Your task to perform on an android device: turn off smart reply in the gmail app Image 0: 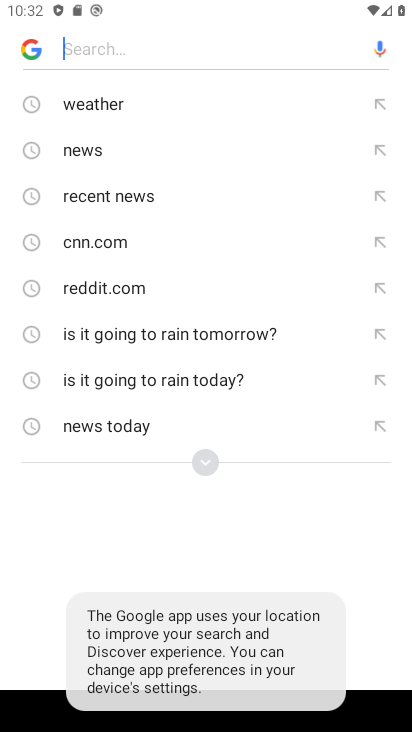
Step 0: press home button
Your task to perform on an android device: turn off smart reply in the gmail app Image 1: 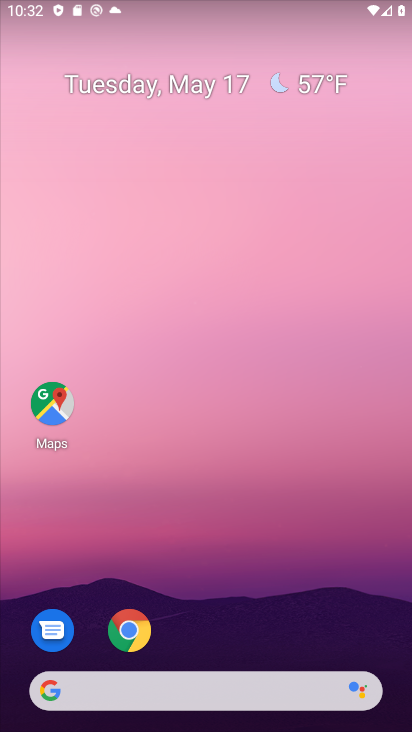
Step 1: drag from (200, 622) to (250, 87)
Your task to perform on an android device: turn off smart reply in the gmail app Image 2: 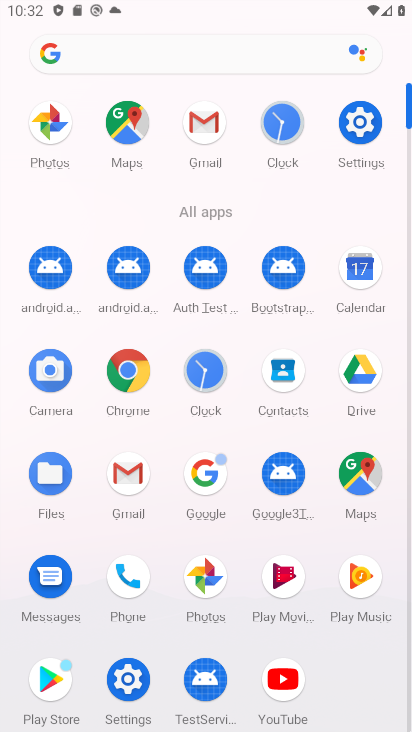
Step 2: click (132, 477)
Your task to perform on an android device: turn off smart reply in the gmail app Image 3: 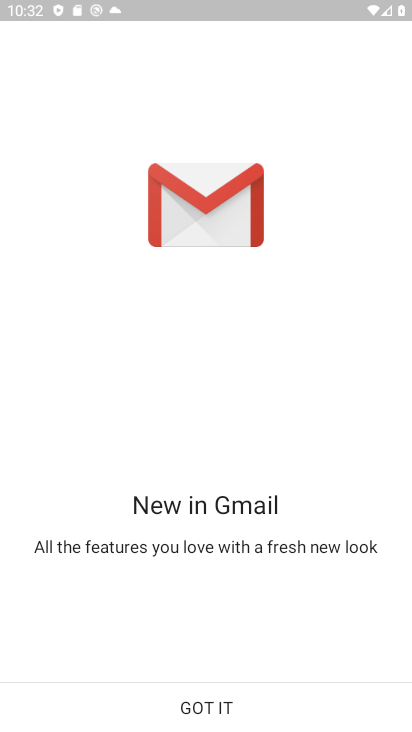
Step 3: click (200, 719)
Your task to perform on an android device: turn off smart reply in the gmail app Image 4: 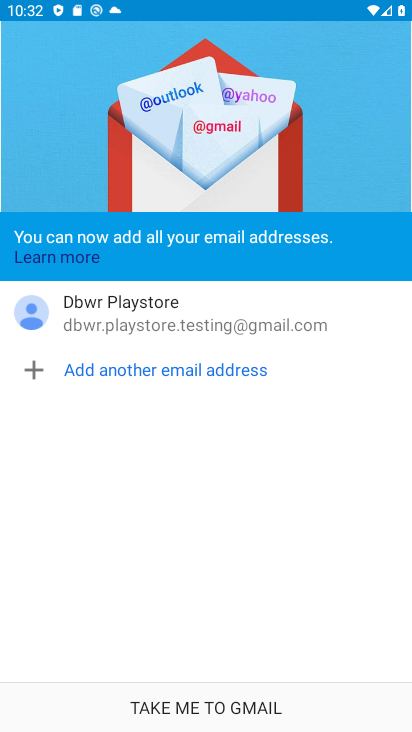
Step 4: click (201, 709)
Your task to perform on an android device: turn off smart reply in the gmail app Image 5: 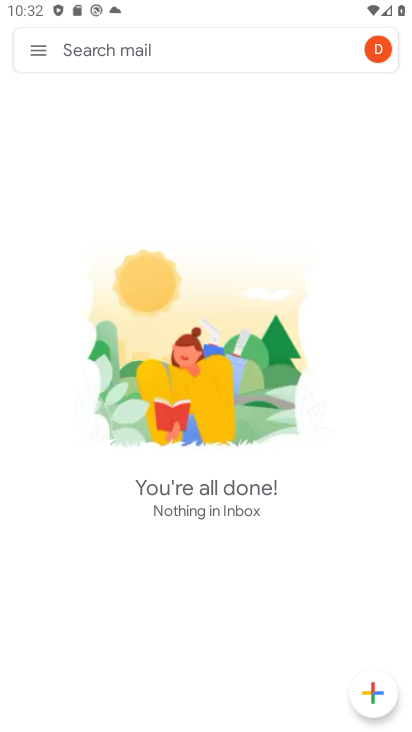
Step 5: click (18, 33)
Your task to perform on an android device: turn off smart reply in the gmail app Image 6: 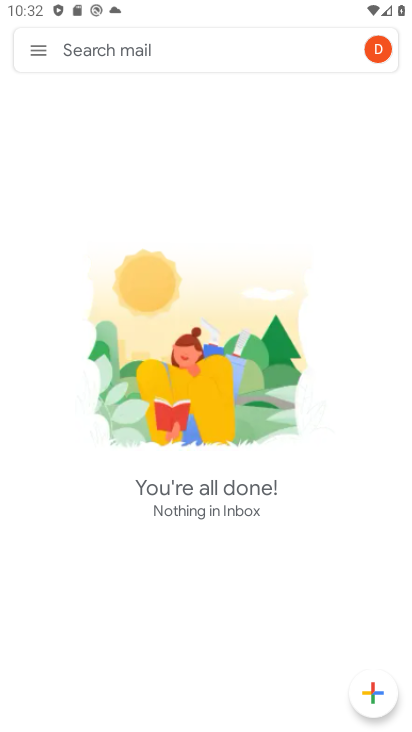
Step 6: click (36, 53)
Your task to perform on an android device: turn off smart reply in the gmail app Image 7: 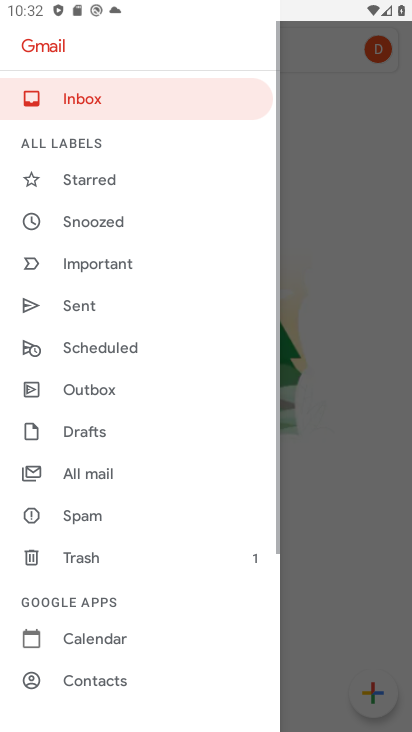
Step 7: drag from (139, 629) to (208, 75)
Your task to perform on an android device: turn off smart reply in the gmail app Image 8: 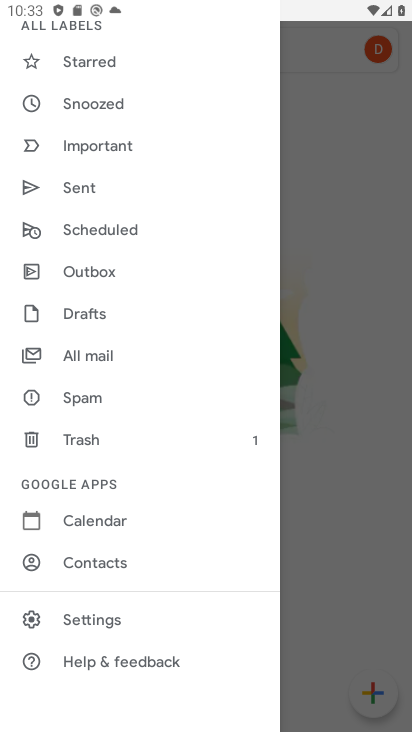
Step 8: click (99, 623)
Your task to perform on an android device: turn off smart reply in the gmail app Image 9: 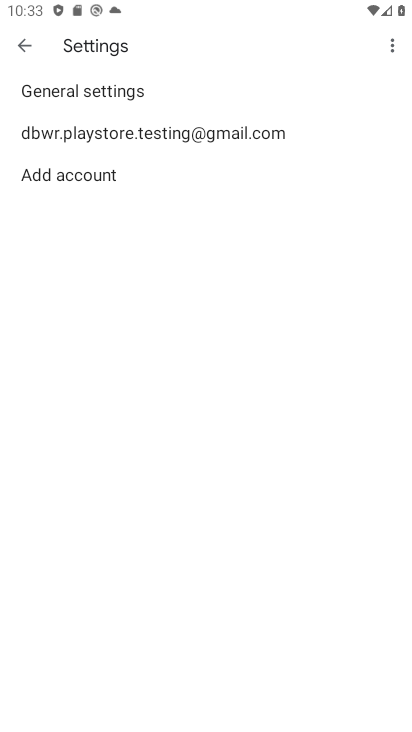
Step 9: click (89, 132)
Your task to perform on an android device: turn off smart reply in the gmail app Image 10: 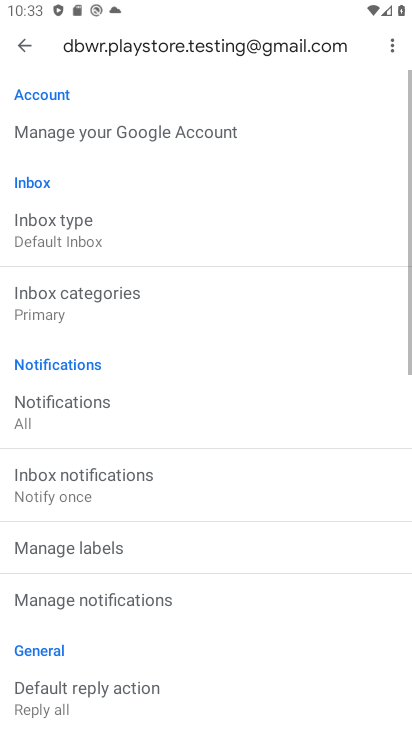
Step 10: drag from (211, 658) to (328, 30)
Your task to perform on an android device: turn off smart reply in the gmail app Image 11: 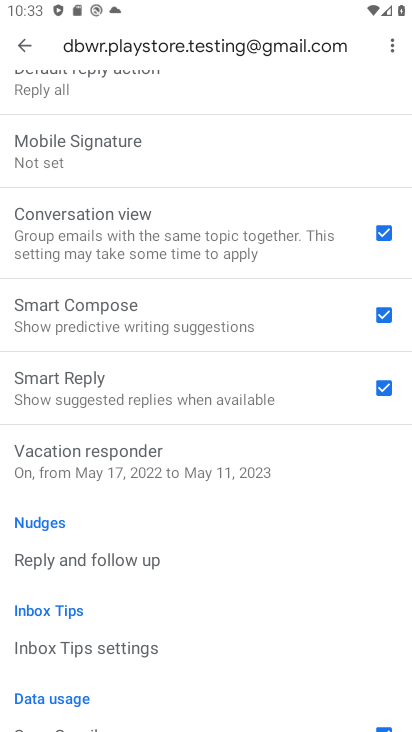
Step 11: click (383, 387)
Your task to perform on an android device: turn off smart reply in the gmail app Image 12: 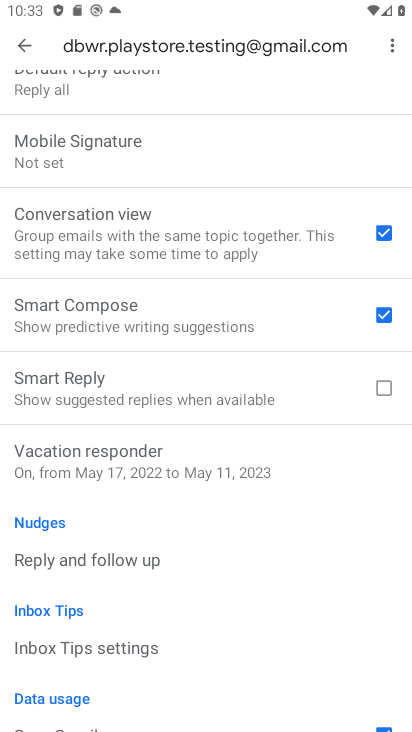
Step 12: task complete